Your task to perform on an android device: What are the best selling refrigerators at Lowes? Image 0: 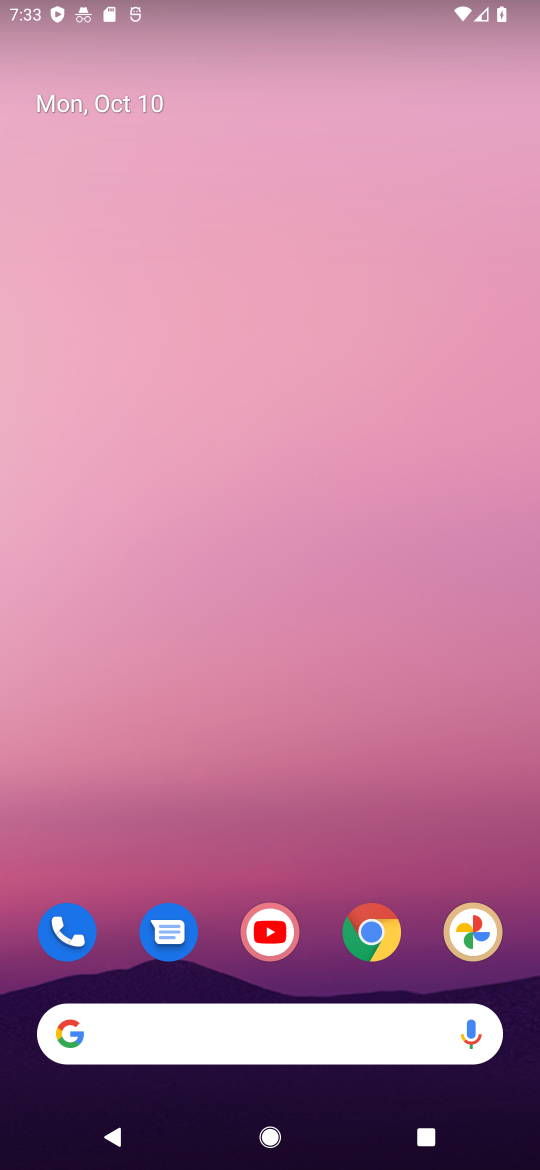
Step 0: drag from (324, 968) to (363, 146)
Your task to perform on an android device: What are the best selling refrigerators at Lowes? Image 1: 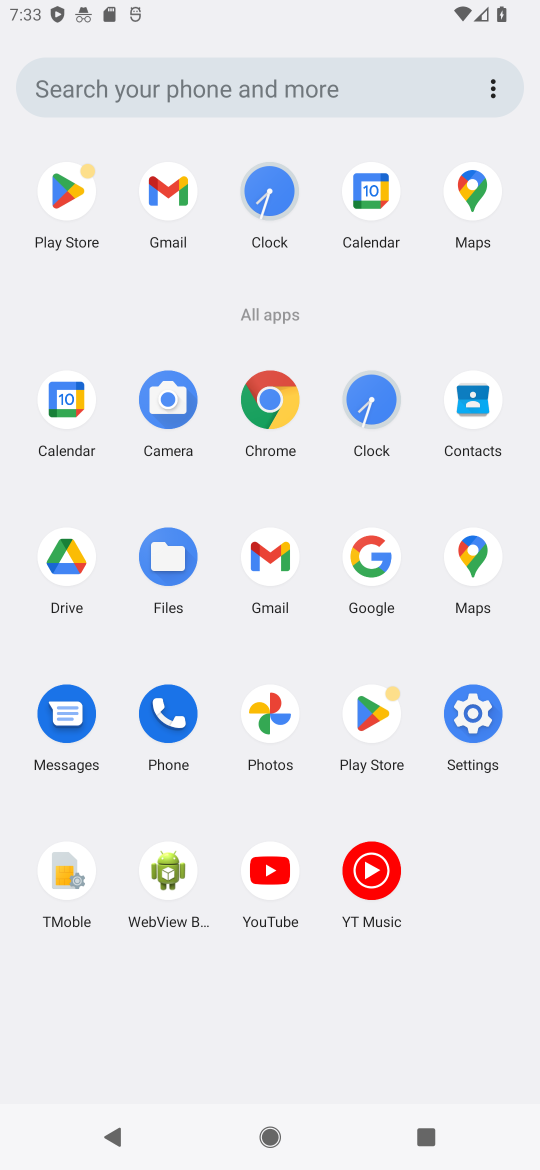
Step 1: click (271, 407)
Your task to perform on an android device: What are the best selling refrigerators at Lowes? Image 2: 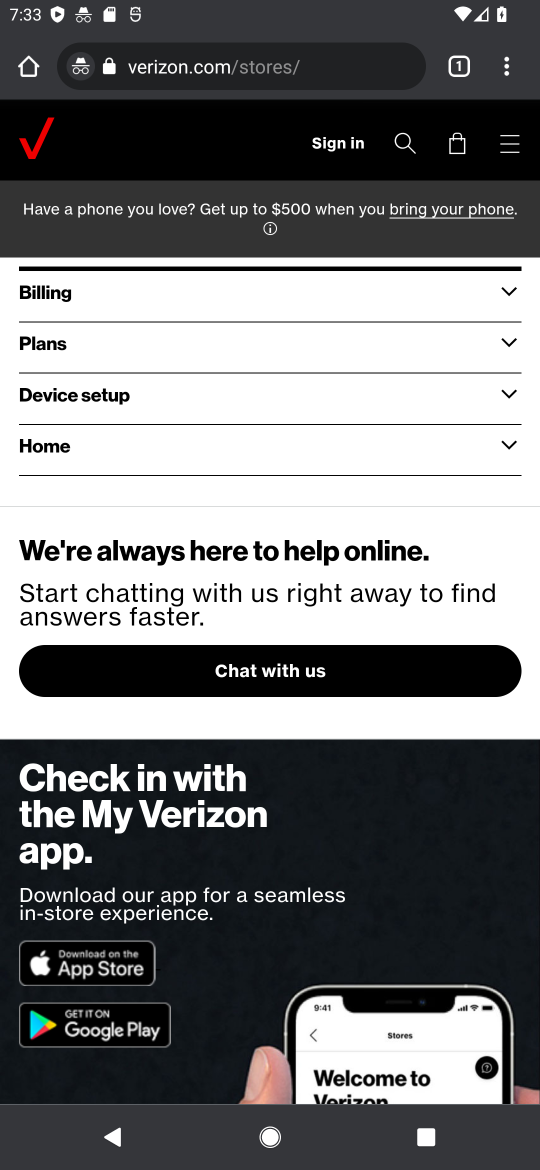
Step 2: click (297, 67)
Your task to perform on an android device: What are the best selling refrigerators at Lowes? Image 3: 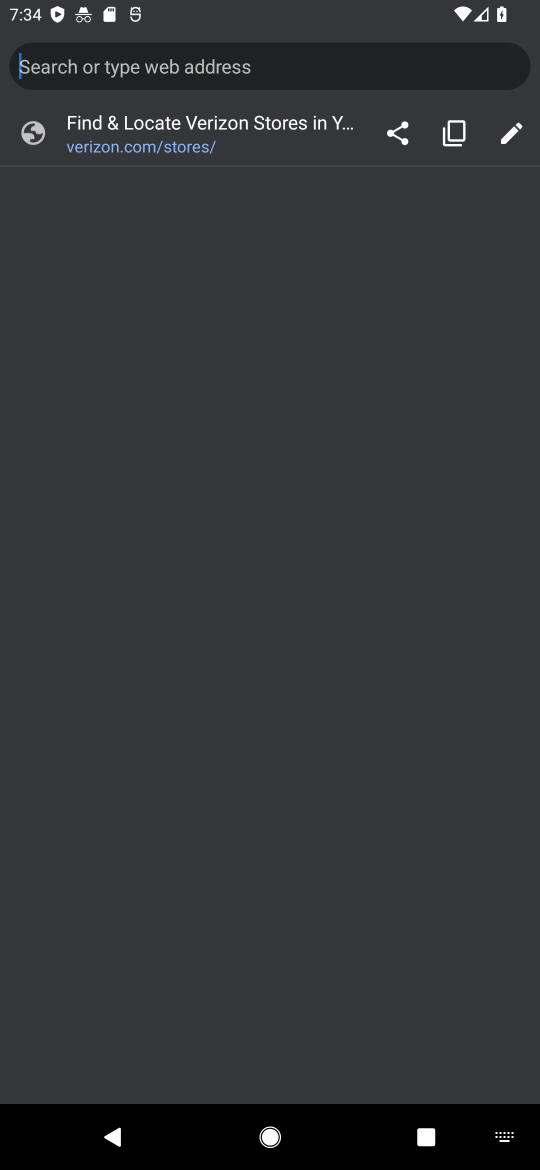
Step 3: type "What are the best selling refrigerators at Lowes?"
Your task to perform on an android device: What are the best selling refrigerators at Lowes? Image 4: 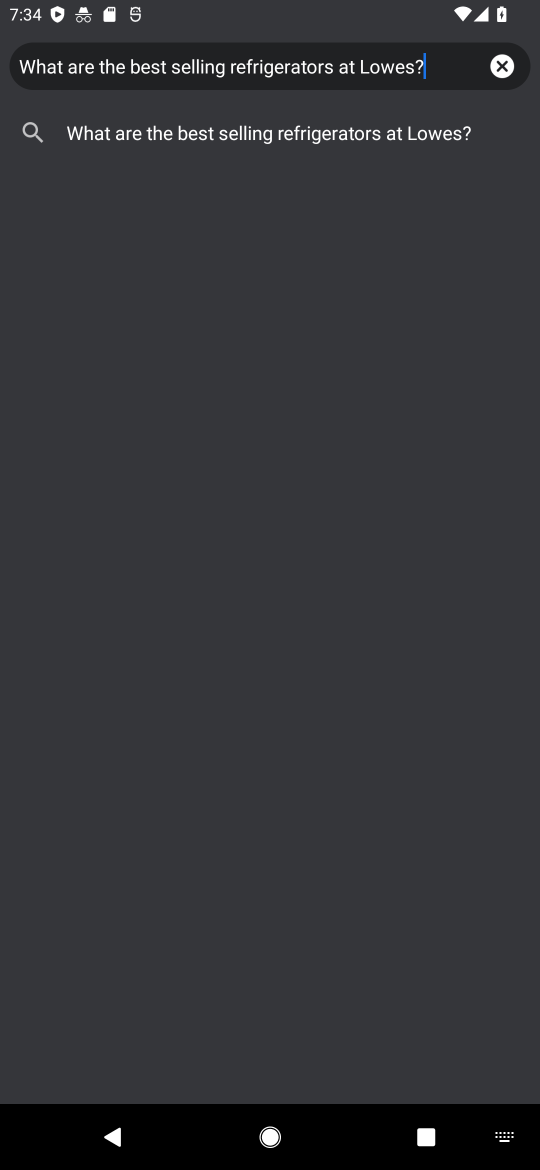
Step 4: press enter
Your task to perform on an android device: What are the best selling refrigerators at Lowes? Image 5: 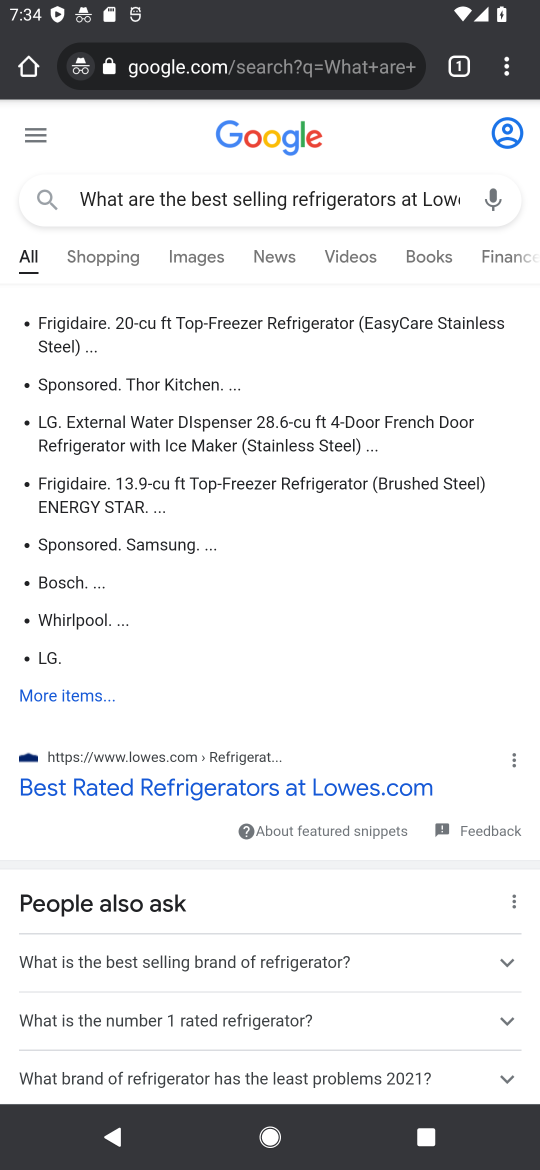
Step 5: click (208, 779)
Your task to perform on an android device: What are the best selling refrigerators at Lowes? Image 6: 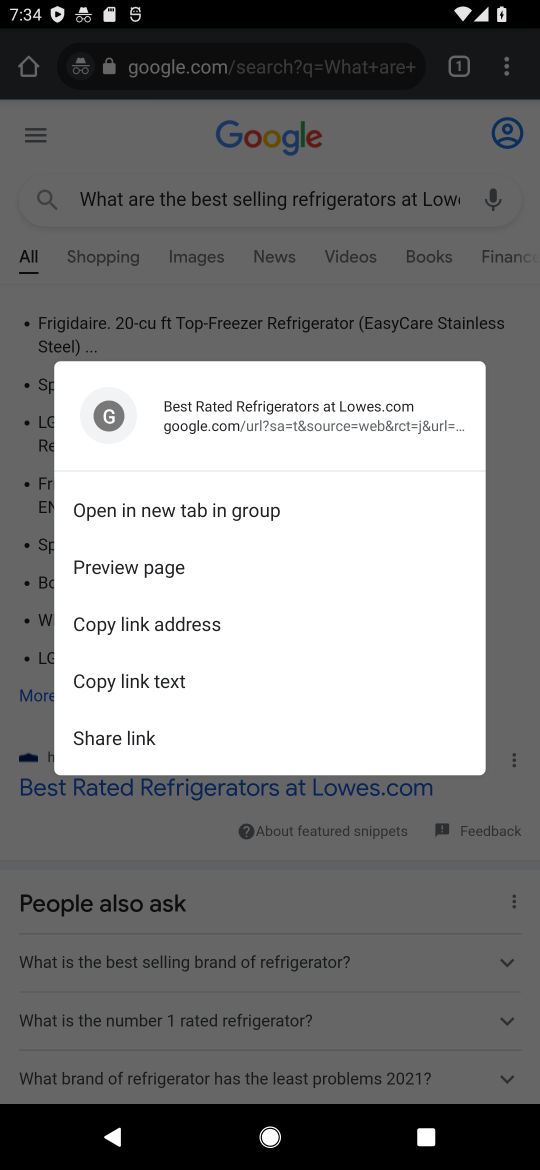
Step 6: click (217, 798)
Your task to perform on an android device: What are the best selling refrigerators at Lowes? Image 7: 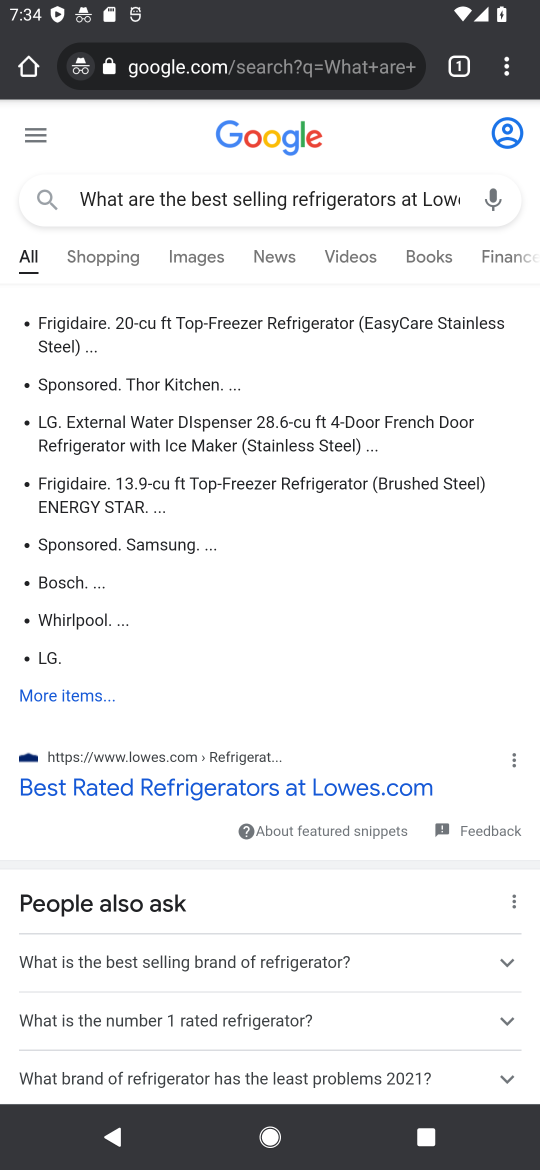
Step 7: click (210, 793)
Your task to perform on an android device: What are the best selling refrigerators at Lowes? Image 8: 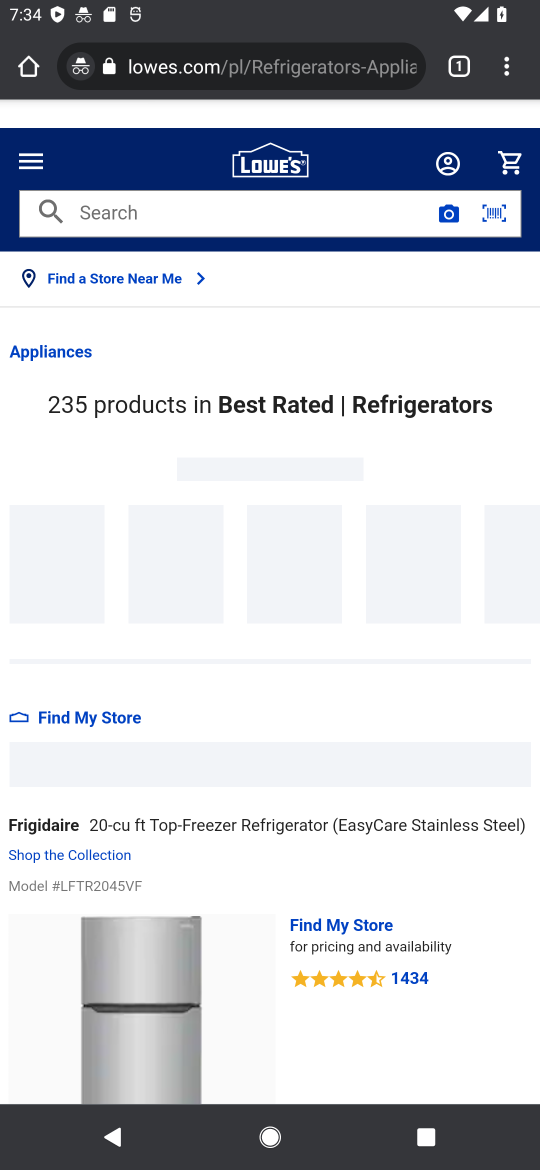
Step 8: task complete